Your task to perform on an android device: Open Wikipedia Image 0: 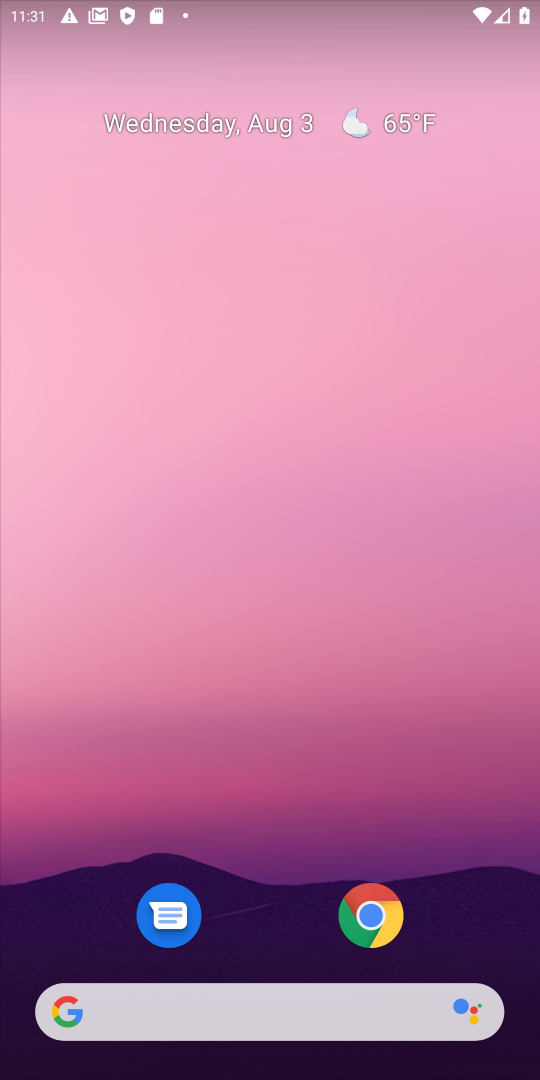
Step 0: click (377, 923)
Your task to perform on an android device: Open Wikipedia Image 1: 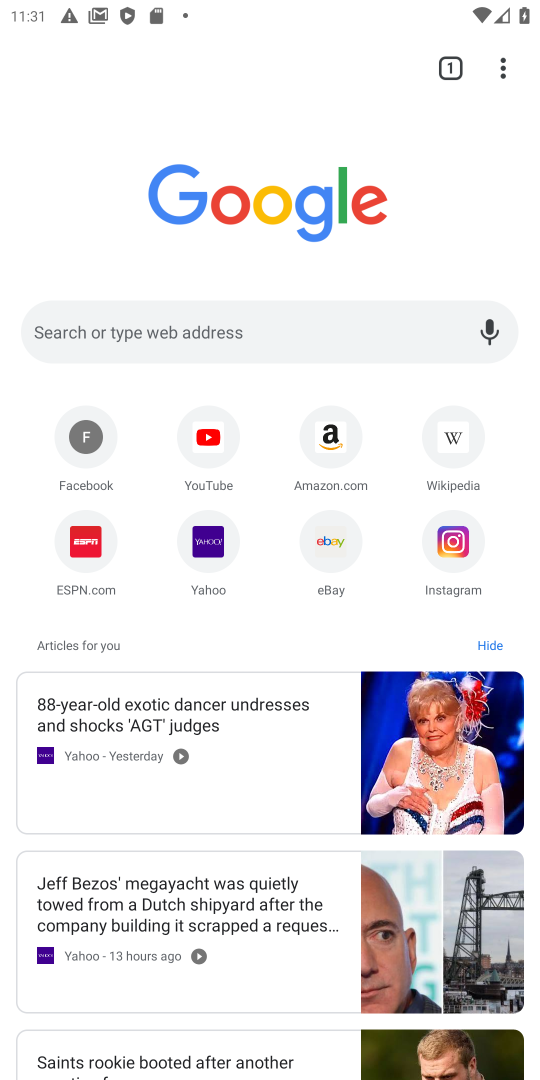
Step 1: click (456, 456)
Your task to perform on an android device: Open Wikipedia Image 2: 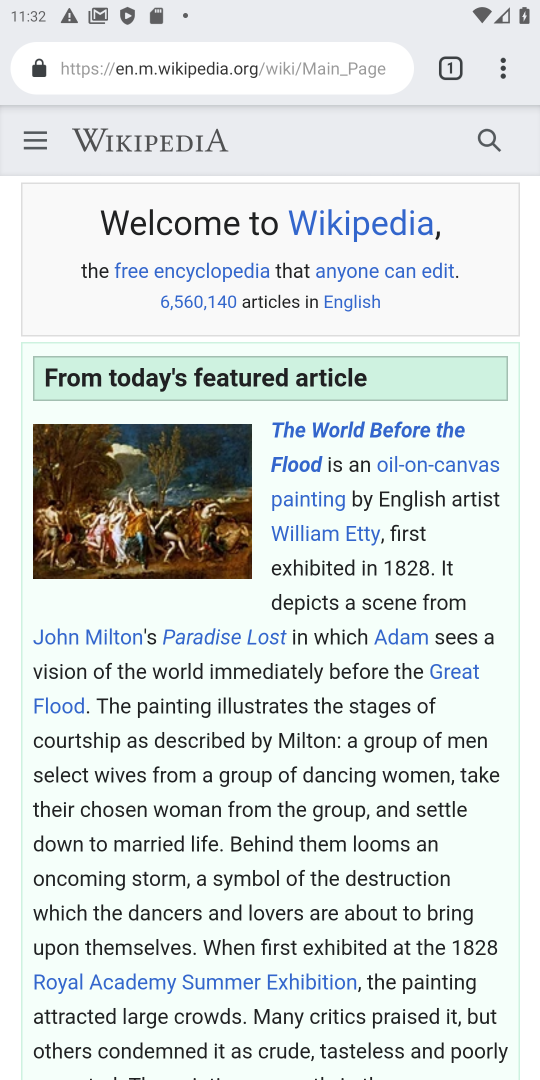
Step 2: task complete